Your task to perform on an android device: toggle translation in the chrome app Image 0: 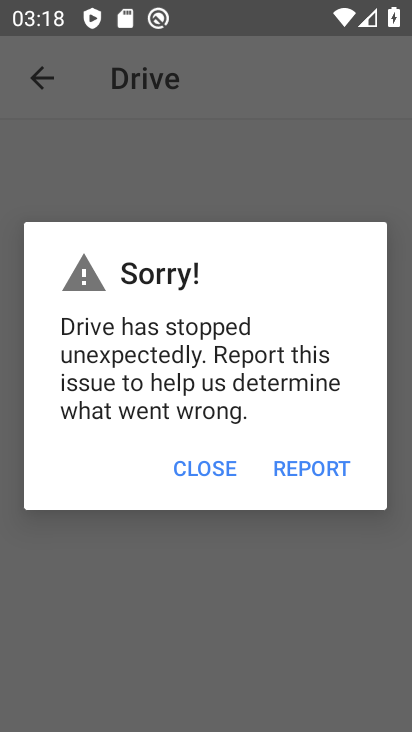
Step 0: press home button
Your task to perform on an android device: toggle translation in the chrome app Image 1: 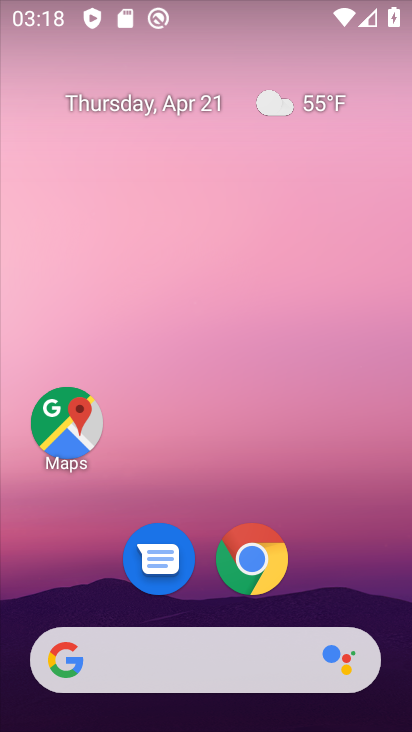
Step 1: click (249, 546)
Your task to perform on an android device: toggle translation in the chrome app Image 2: 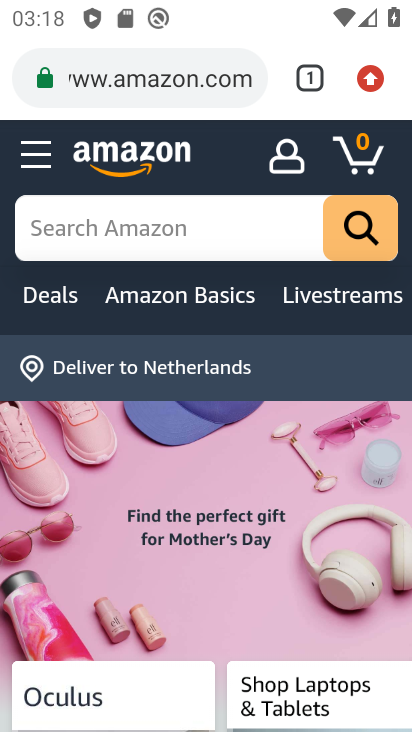
Step 2: click (377, 74)
Your task to perform on an android device: toggle translation in the chrome app Image 3: 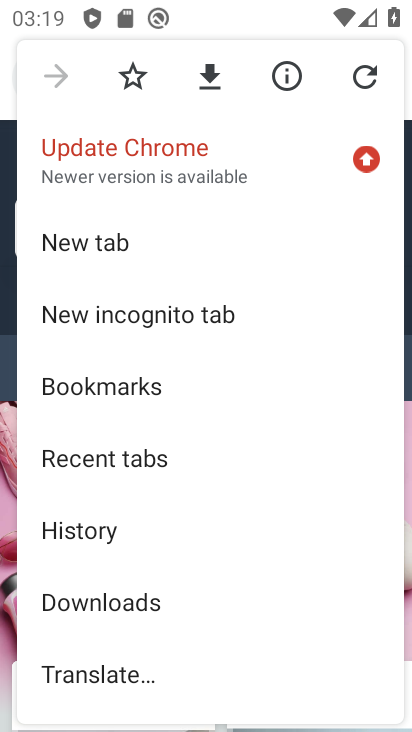
Step 3: drag from (200, 624) to (302, 245)
Your task to perform on an android device: toggle translation in the chrome app Image 4: 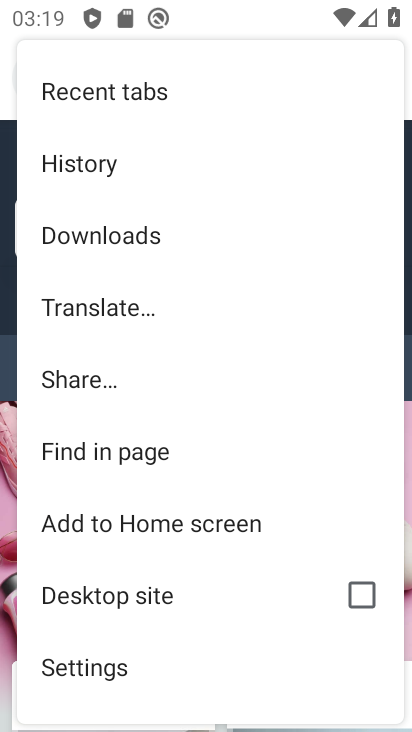
Step 4: click (95, 668)
Your task to perform on an android device: toggle translation in the chrome app Image 5: 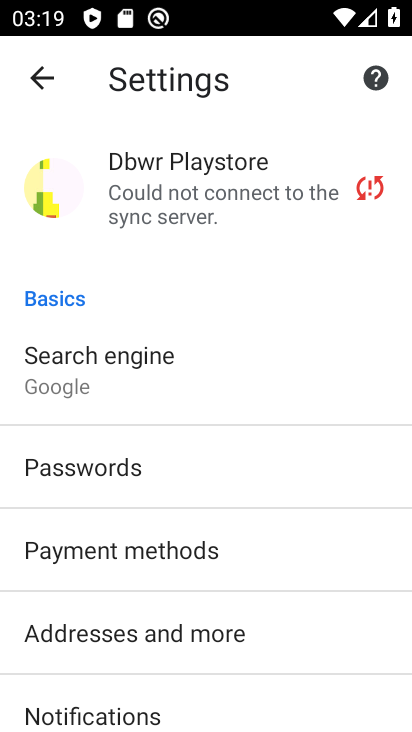
Step 5: drag from (143, 518) to (195, 156)
Your task to perform on an android device: toggle translation in the chrome app Image 6: 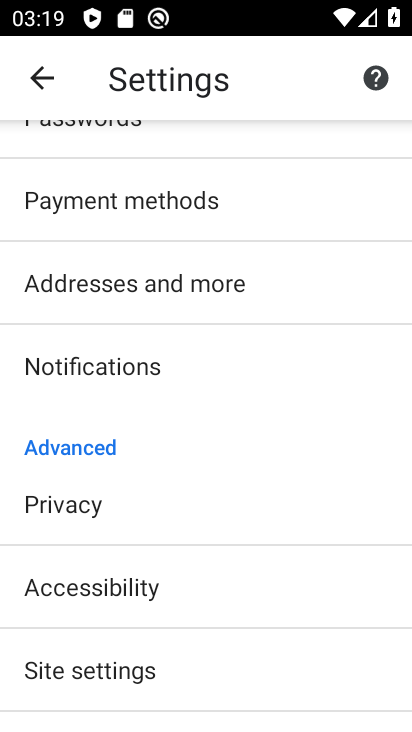
Step 6: drag from (226, 604) to (221, 293)
Your task to perform on an android device: toggle translation in the chrome app Image 7: 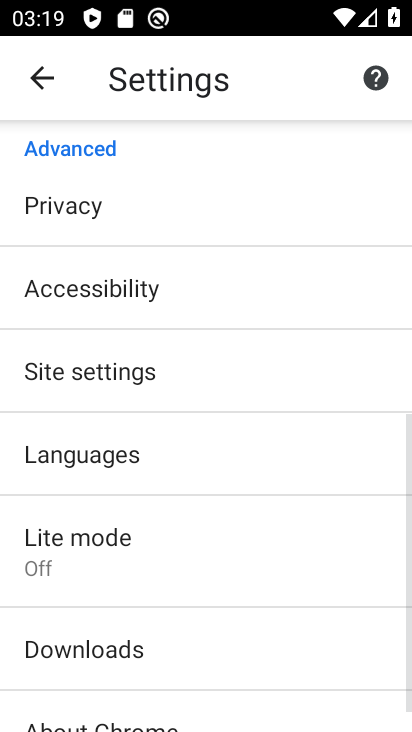
Step 7: click (185, 449)
Your task to perform on an android device: toggle translation in the chrome app Image 8: 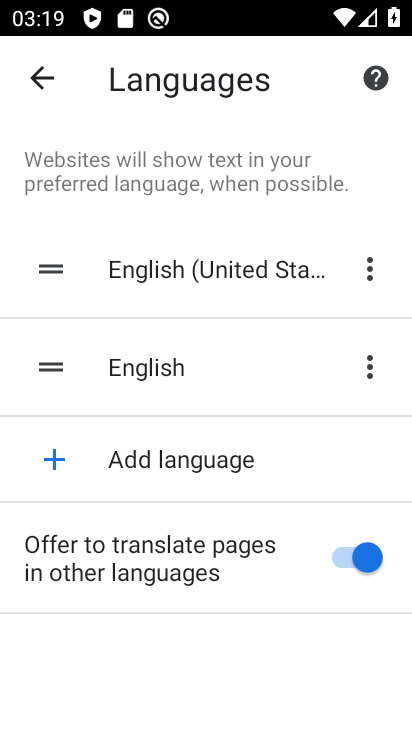
Step 8: click (355, 567)
Your task to perform on an android device: toggle translation in the chrome app Image 9: 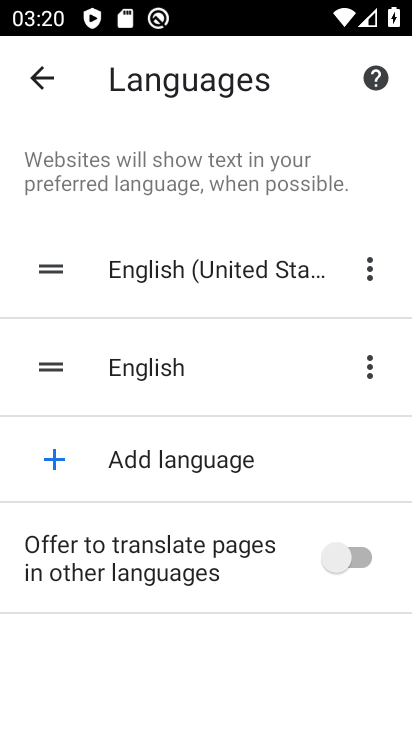
Step 9: task complete